Your task to perform on an android device: Go to Reddit.com Image 0: 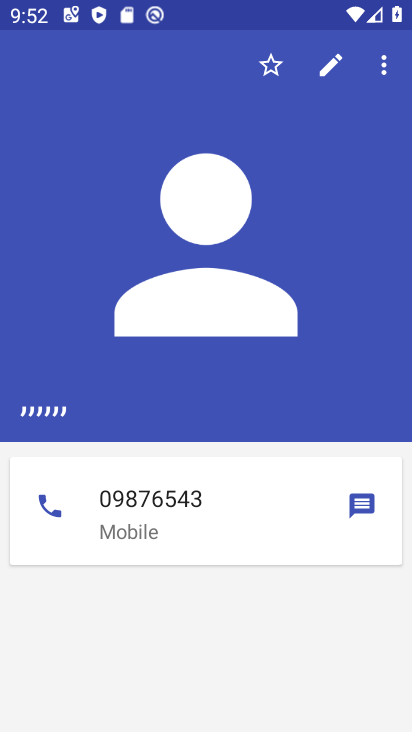
Step 0: press home button
Your task to perform on an android device: Go to Reddit.com Image 1: 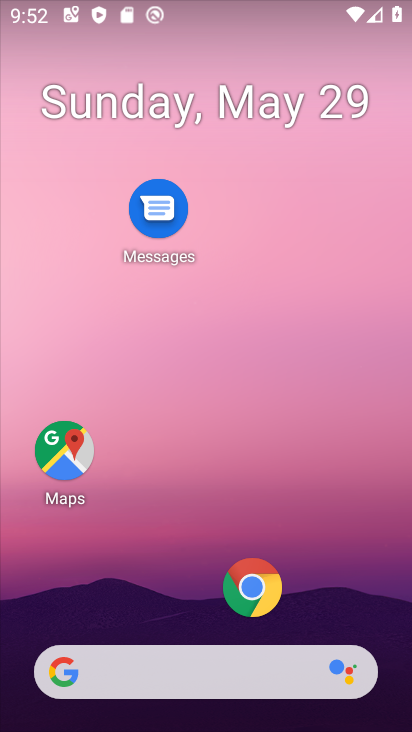
Step 1: click (244, 588)
Your task to perform on an android device: Go to Reddit.com Image 2: 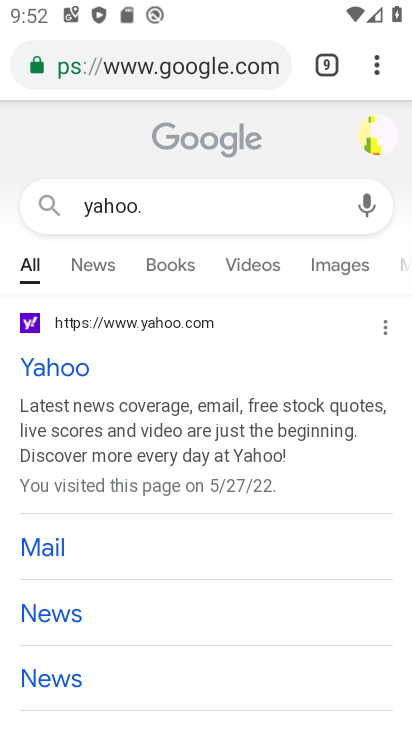
Step 2: click (321, 62)
Your task to perform on an android device: Go to Reddit.com Image 3: 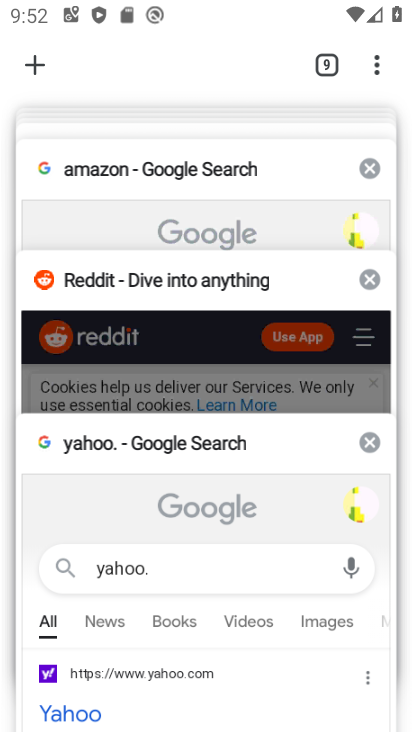
Step 3: click (85, 299)
Your task to perform on an android device: Go to Reddit.com Image 4: 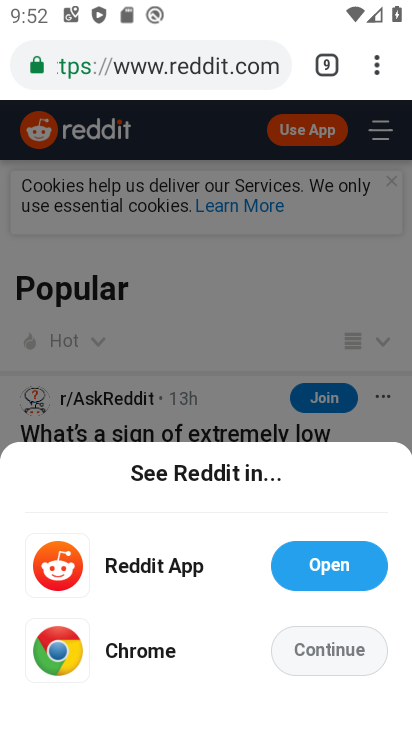
Step 4: task complete